Your task to perform on an android device: read, delete, or share a saved page in the chrome app Image 0: 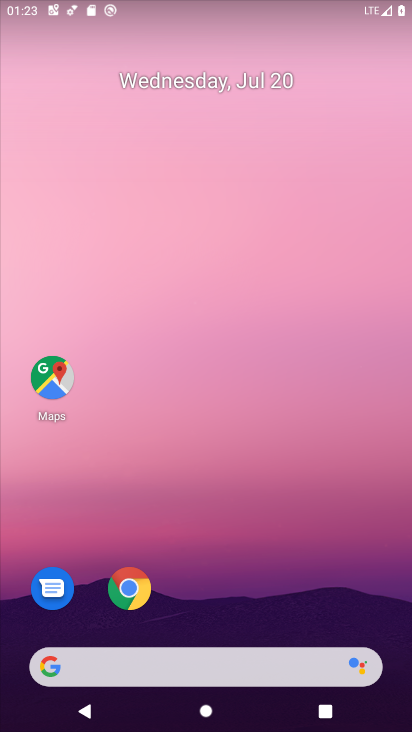
Step 0: drag from (157, 602) to (195, 183)
Your task to perform on an android device: read, delete, or share a saved page in the chrome app Image 1: 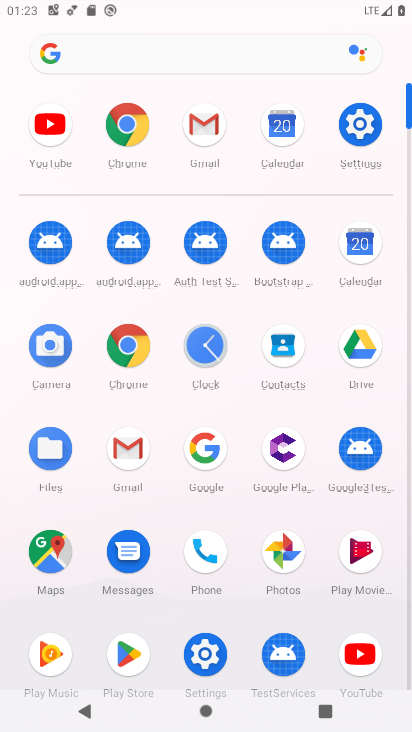
Step 1: click (123, 126)
Your task to perform on an android device: read, delete, or share a saved page in the chrome app Image 2: 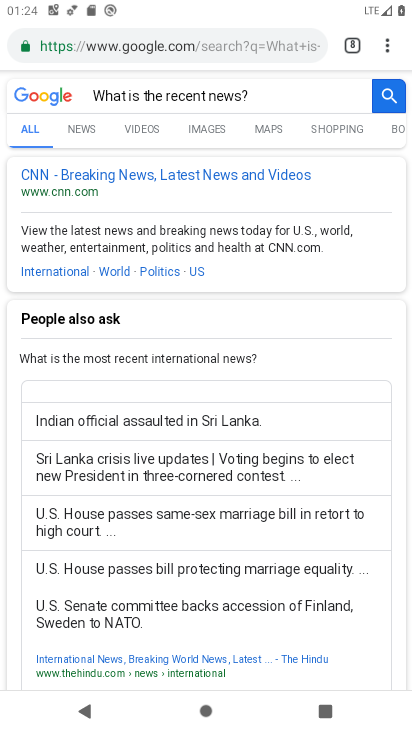
Step 2: click (397, 36)
Your task to perform on an android device: read, delete, or share a saved page in the chrome app Image 3: 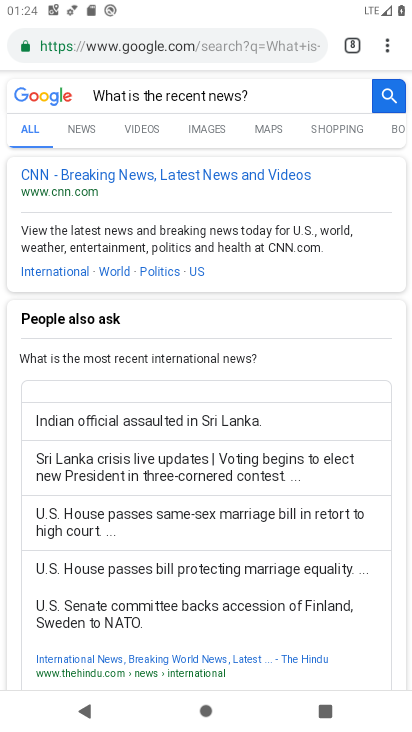
Step 3: click (388, 40)
Your task to perform on an android device: read, delete, or share a saved page in the chrome app Image 4: 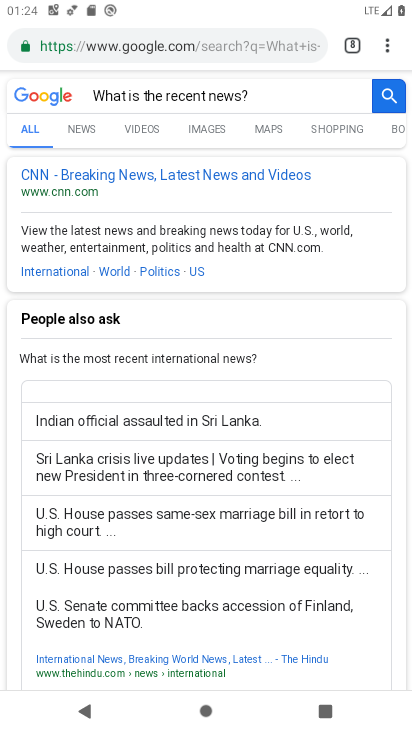
Step 4: click (386, 44)
Your task to perform on an android device: read, delete, or share a saved page in the chrome app Image 5: 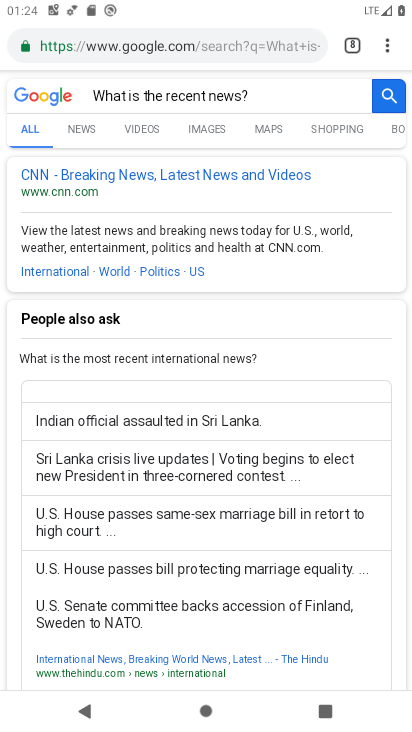
Step 5: click (390, 46)
Your task to perform on an android device: read, delete, or share a saved page in the chrome app Image 6: 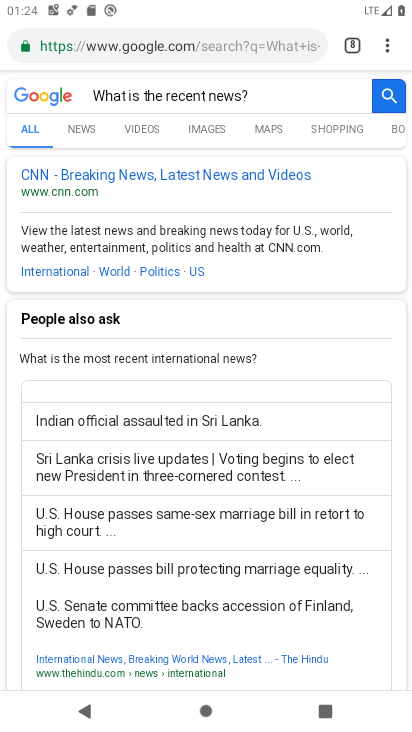
Step 6: click (386, 38)
Your task to perform on an android device: read, delete, or share a saved page in the chrome app Image 7: 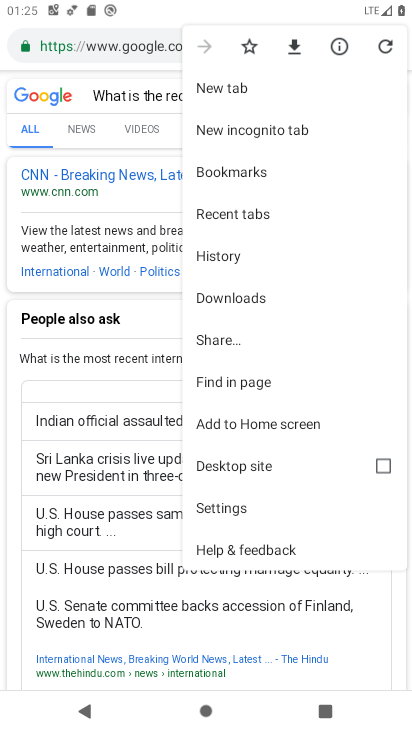
Step 7: click (218, 505)
Your task to perform on an android device: read, delete, or share a saved page in the chrome app Image 8: 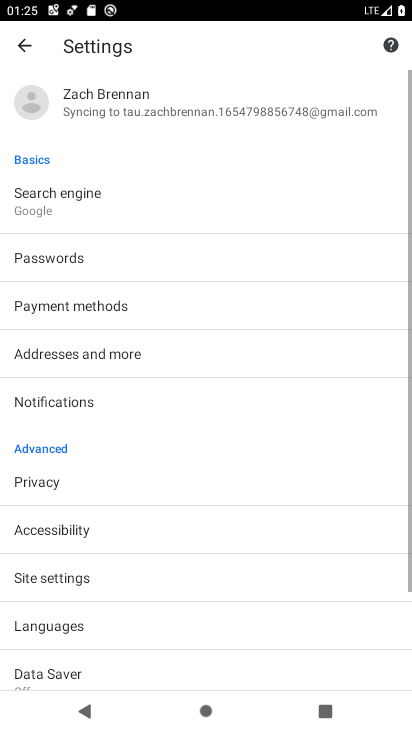
Step 8: task complete